Your task to perform on an android device: install app "LiveIn - Share Your Moment" Image 0: 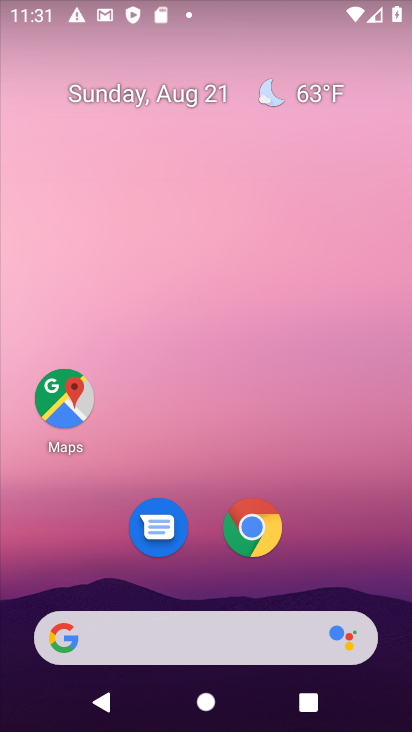
Step 0: drag from (234, 402) to (24, 240)
Your task to perform on an android device: install app "LiveIn - Share Your Moment" Image 1: 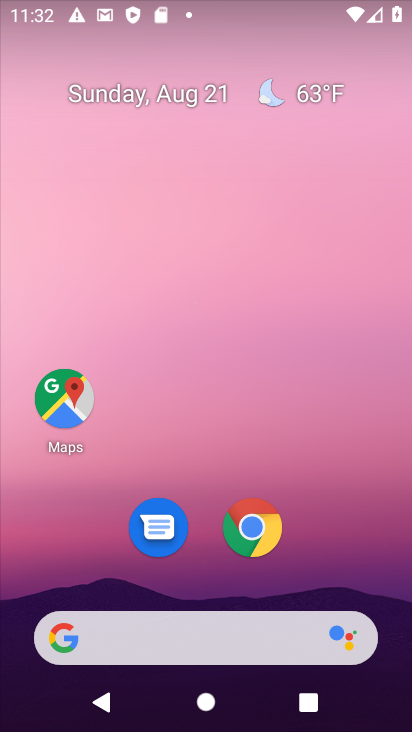
Step 1: drag from (153, 624) to (290, 8)
Your task to perform on an android device: install app "LiveIn - Share Your Moment" Image 2: 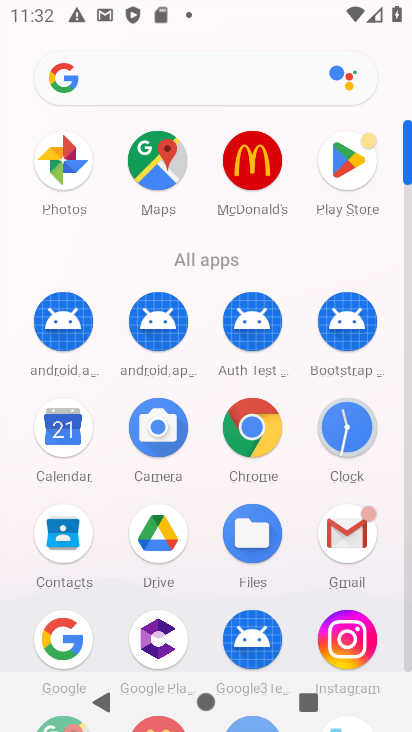
Step 2: click (342, 159)
Your task to perform on an android device: install app "LiveIn - Share Your Moment" Image 3: 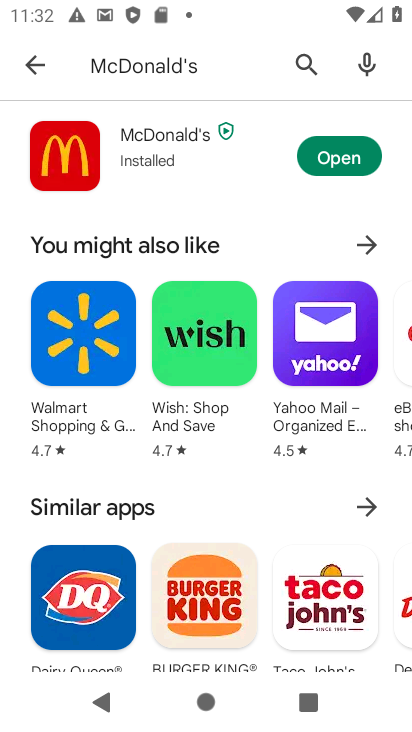
Step 3: press back button
Your task to perform on an android device: install app "LiveIn - Share Your Moment" Image 4: 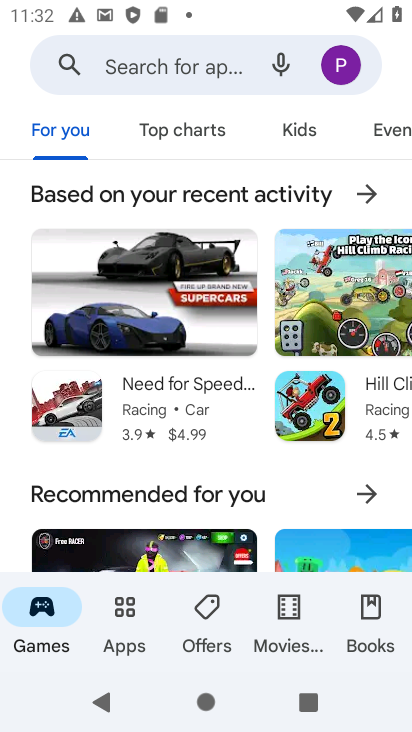
Step 4: click (186, 54)
Your task to perform on an android device: install app "LiveIn - Share Your Moment" Image 5: 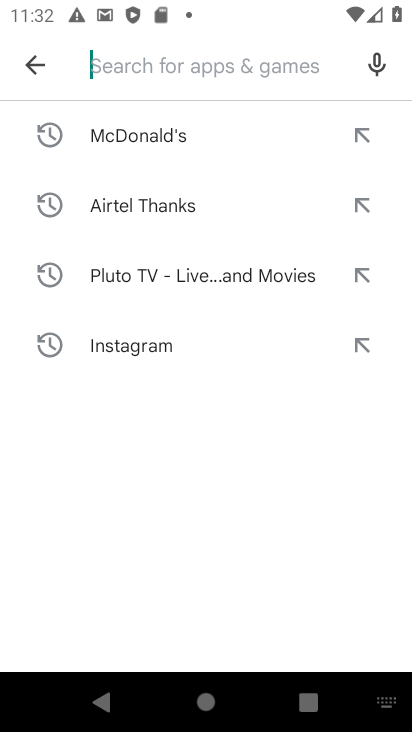
Step 5: type "LiveIn - Share Your Moment"
Your task to perform on an android device: install app "LiveIn - Share Your Moment" Image 6: 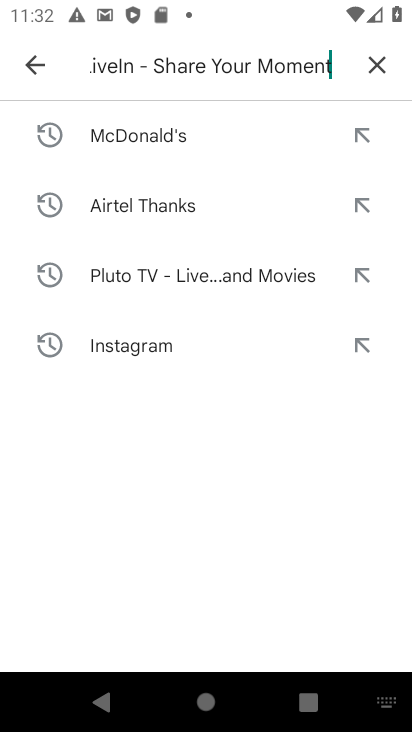
Step 6: press enter
Your task to perform on an android device: install app "LiveIn - Share Your Moment" Image 7: 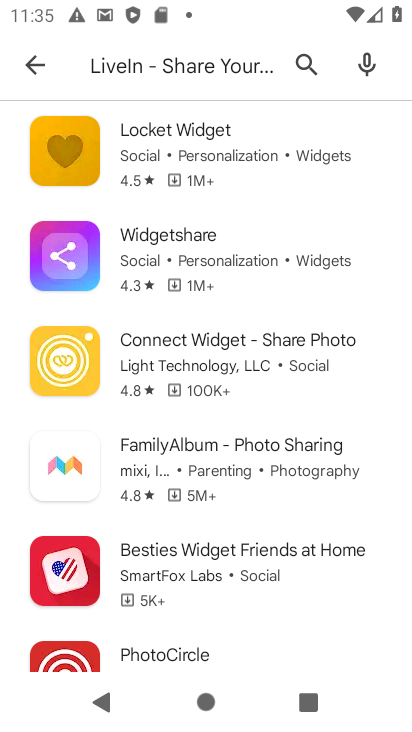
Step 7: task complete